Your task to perform on an android device: Go to Google Image 0: 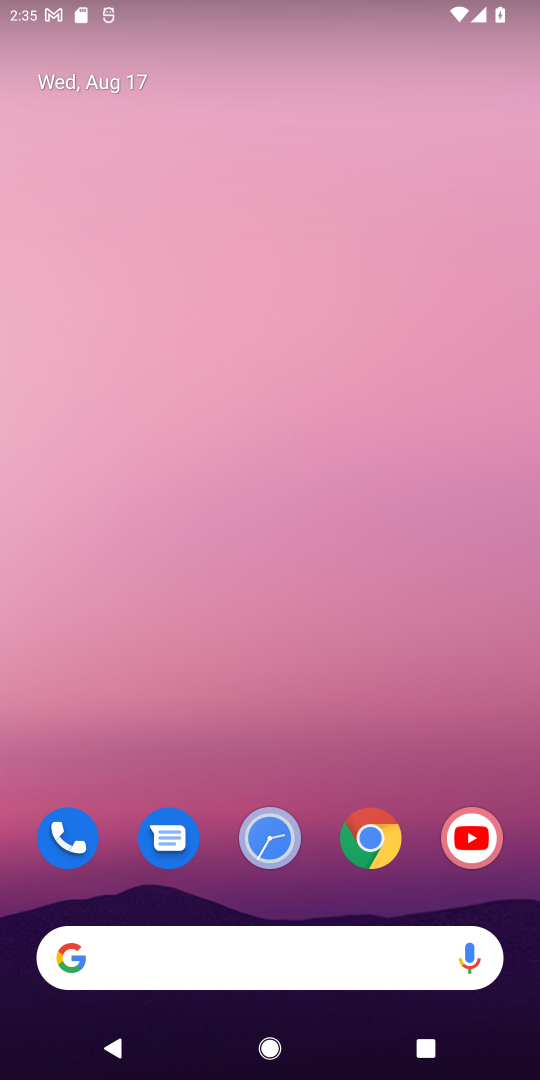
Step 0: drag from (239, 928) to (216, 30)
Your task to perform on an android device: Go to Google Image 1: 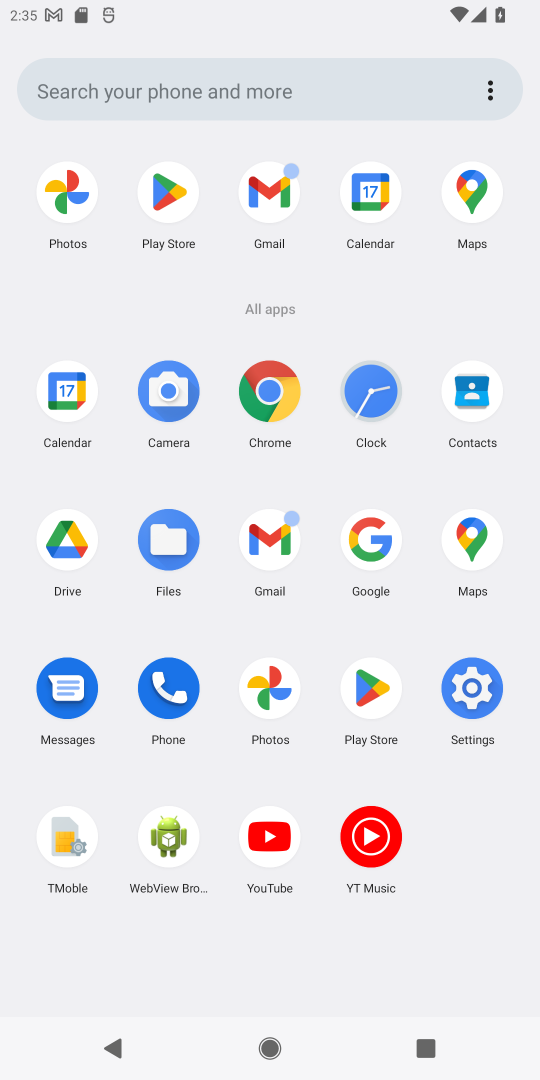
Step 1: click (380, 549)
Your task to perform on an android device: Go to Google Image 2: 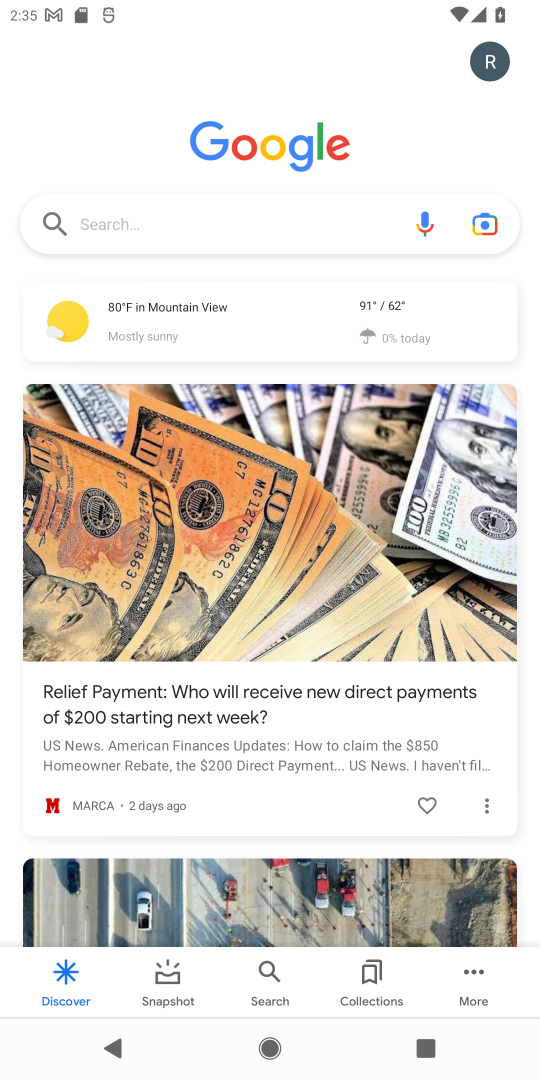
Step 2: task complete